Your task to perform on an android device: Open network settings Image 0: 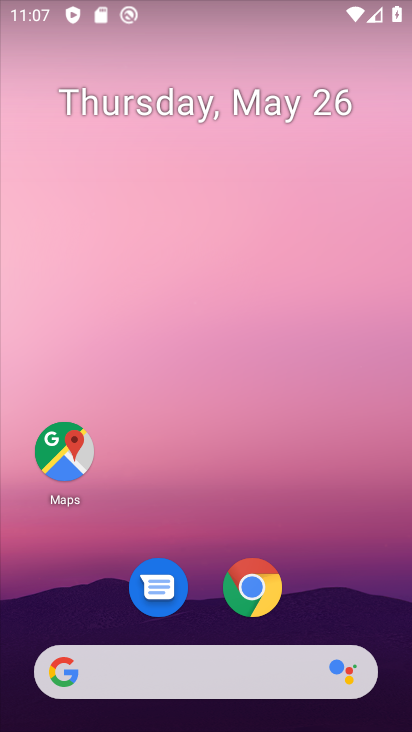
Step 0: press home button
Your task to perform on an android device: Open network settings Image 1: 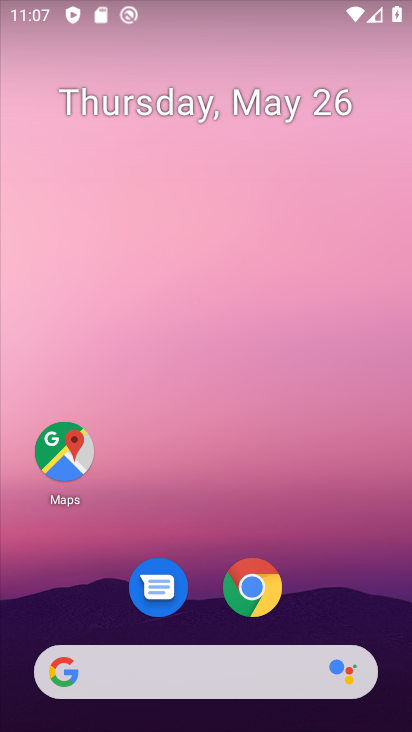
Step 1: drag from (278, 702) to (341, 141)
Your task to perform on an android device: Open network settings Image 2: 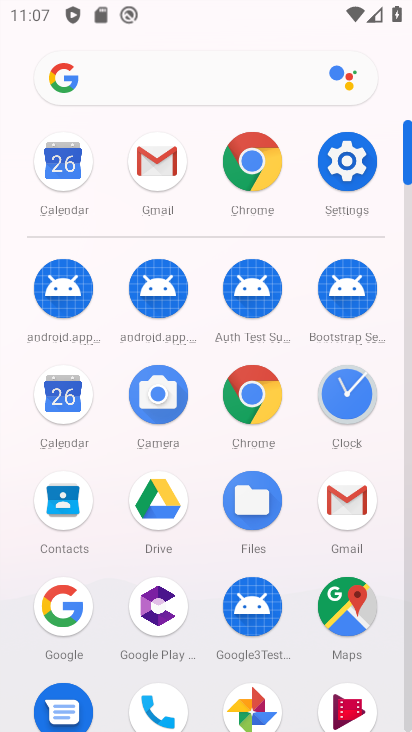
Step 2: click (340, 165)
Your task to perform on an android device: Open network settings Image 3: 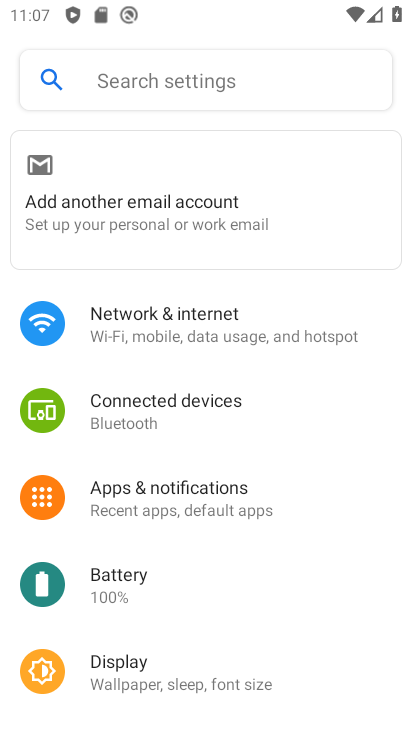
Step 3: click (197, 313)
Your task to perform on an android device: Open network settings Image 4: 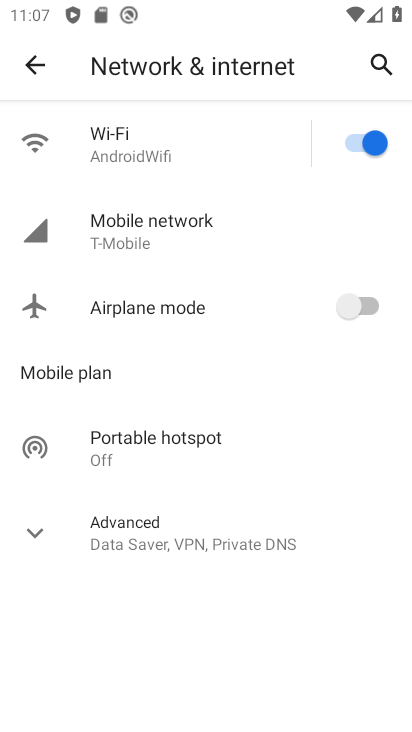
Step 4: task complete